Your task to perform on an android device: Play the last video I watched on Youtube Image 0: 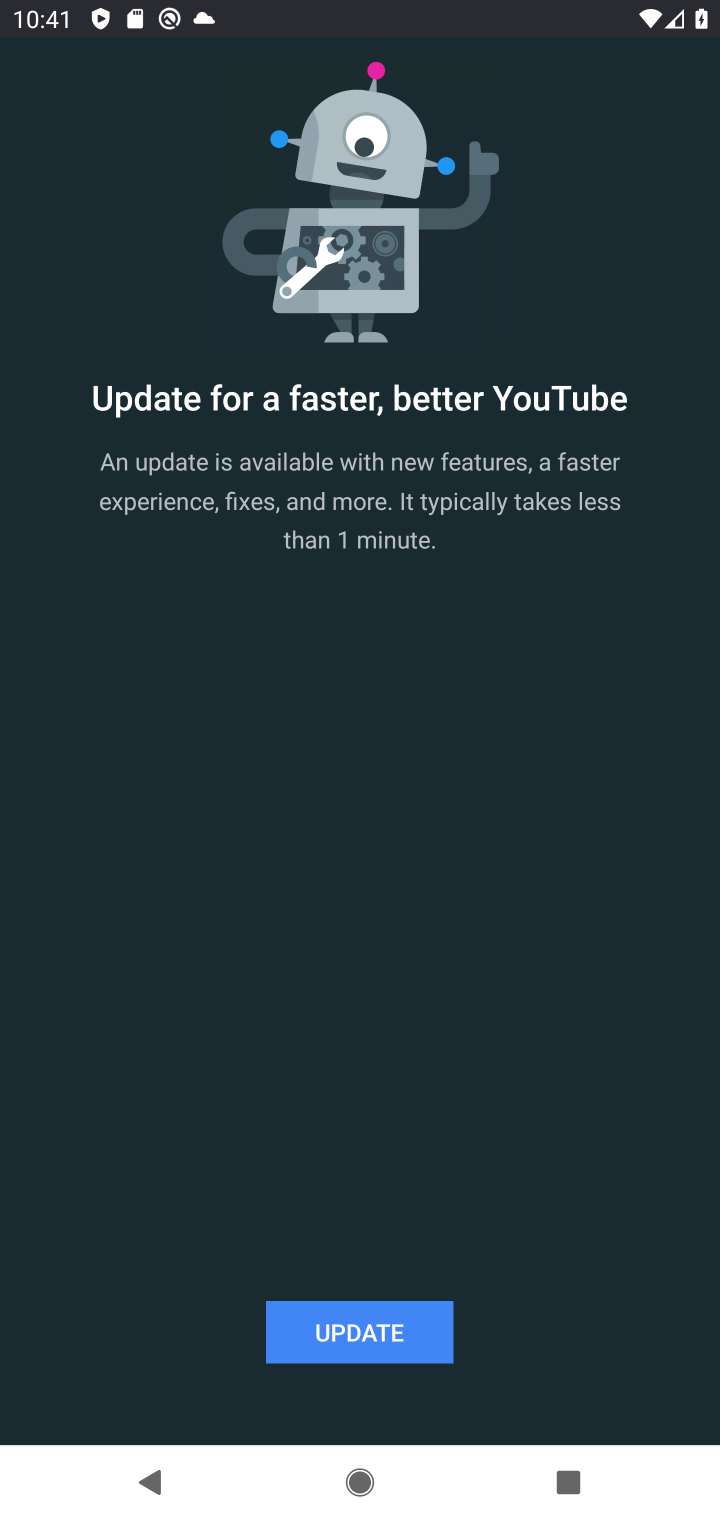
Step 0: press back button
Your task to perform on an android device: Play the last video I watched on Youtube Image 1: 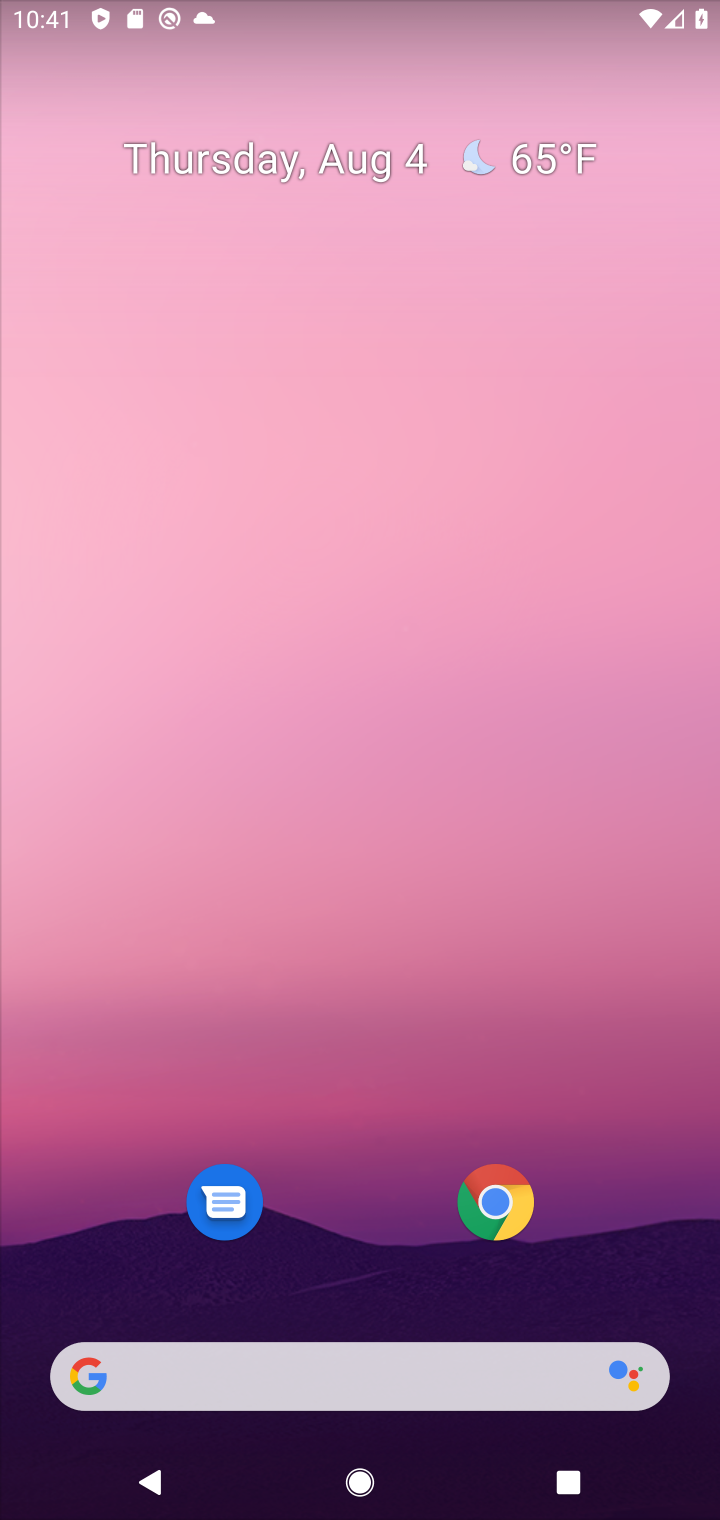
Step 1: drag from (362, 1124) to (542, 45)
Your task to perform on an android device: Play the last video I watched on Youtube Image 2: 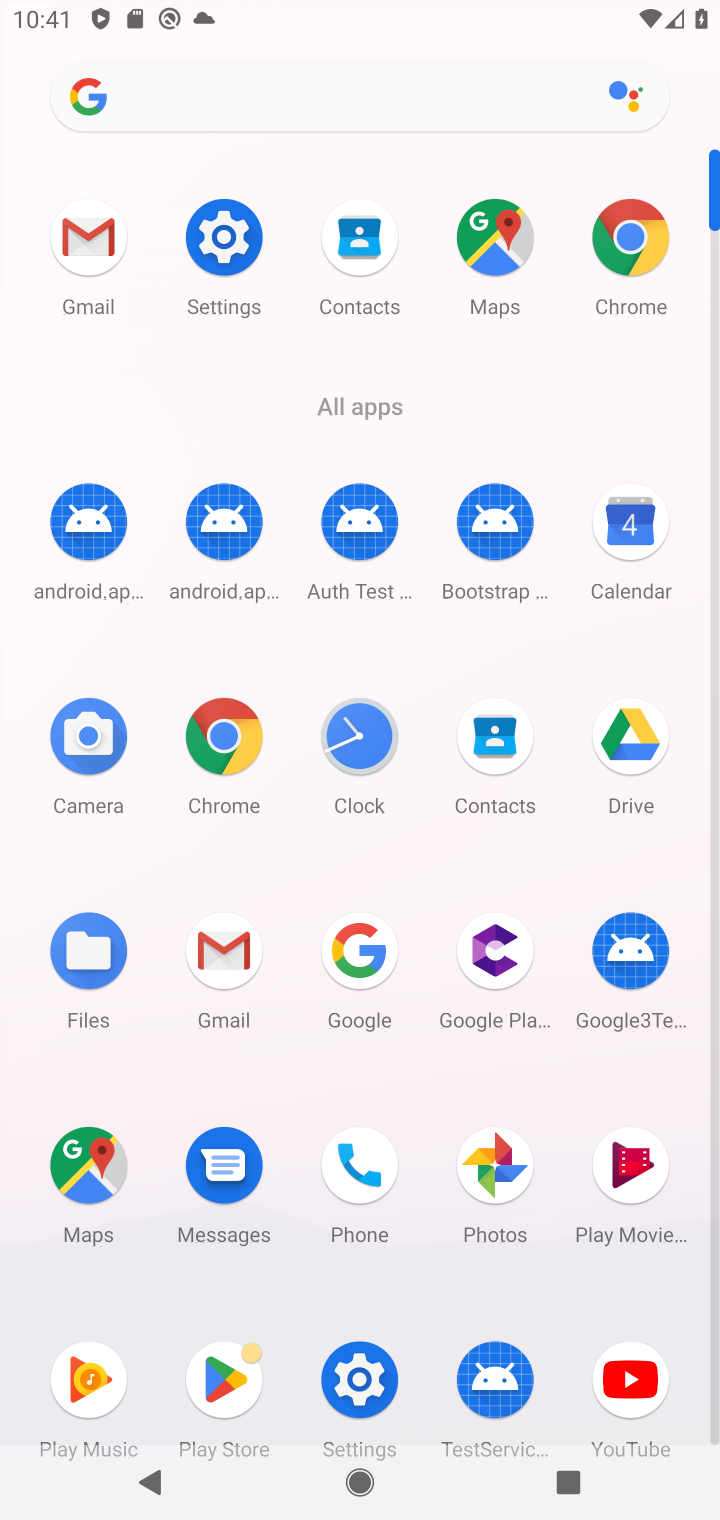
Step 2: click (216, 227)
Your task to perform on an android device: Play the last video I watched on Youtube Image 3: 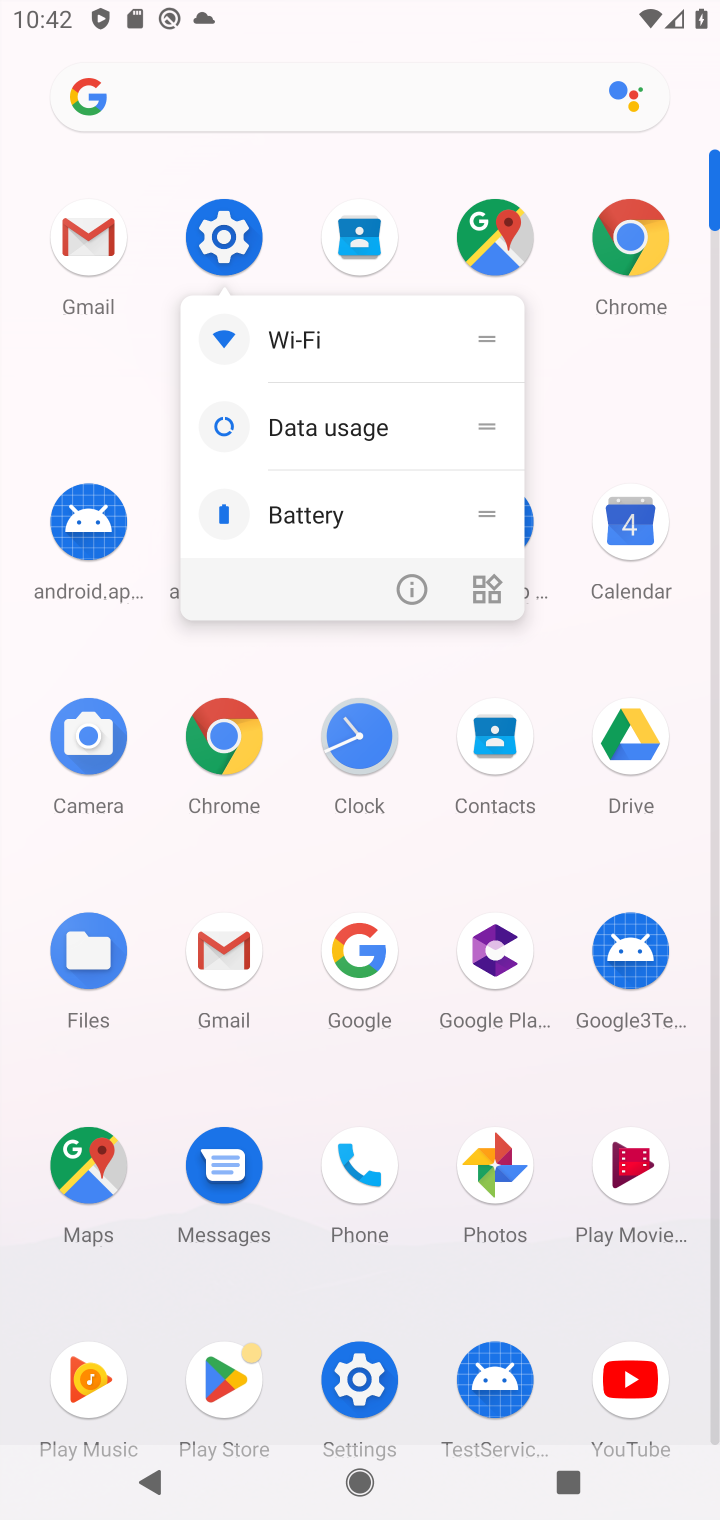
Step 3: click (220, 229)
Your task to perform on an android device: Play the last video I watched on Youtube Image 4: 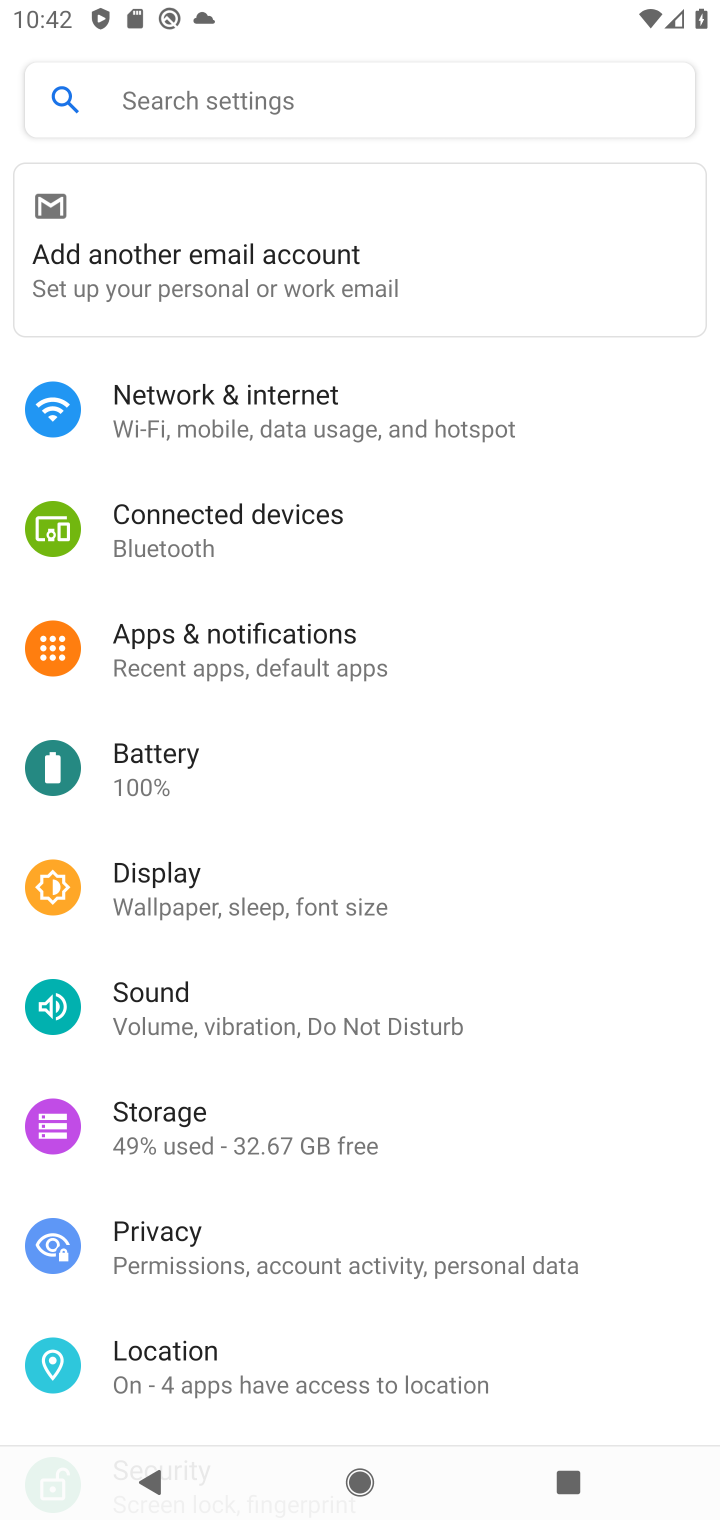
Step 4: click (171, 994)
Your task to perform on an android device: Play the last video I watched on Youtube Image 5: 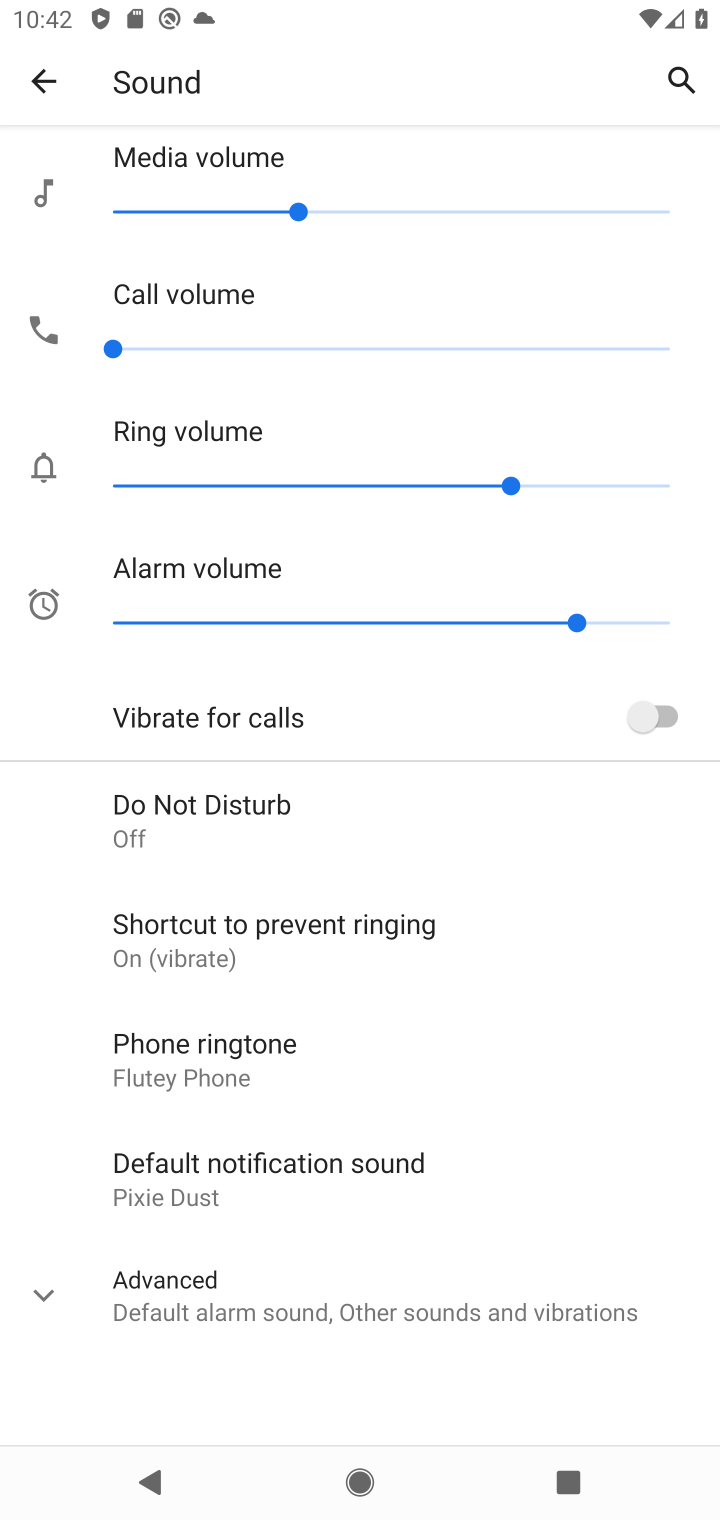
Step 5: press back button
Your task to perform on an android device: Play the last video I watched on Youtube Image 6: 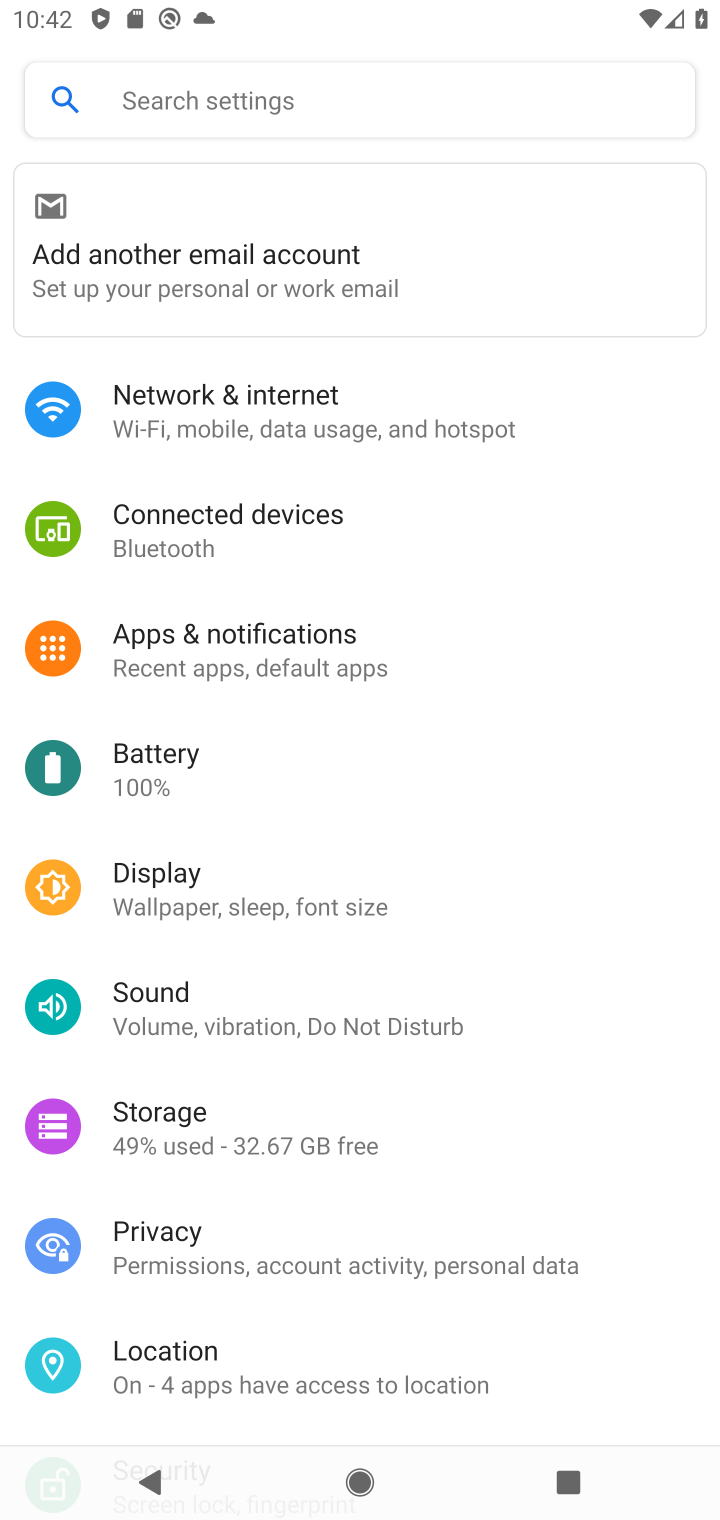
Step 6: press back button
Your task to perform on an android device: Play the last video I watched on Youtube Image 7: 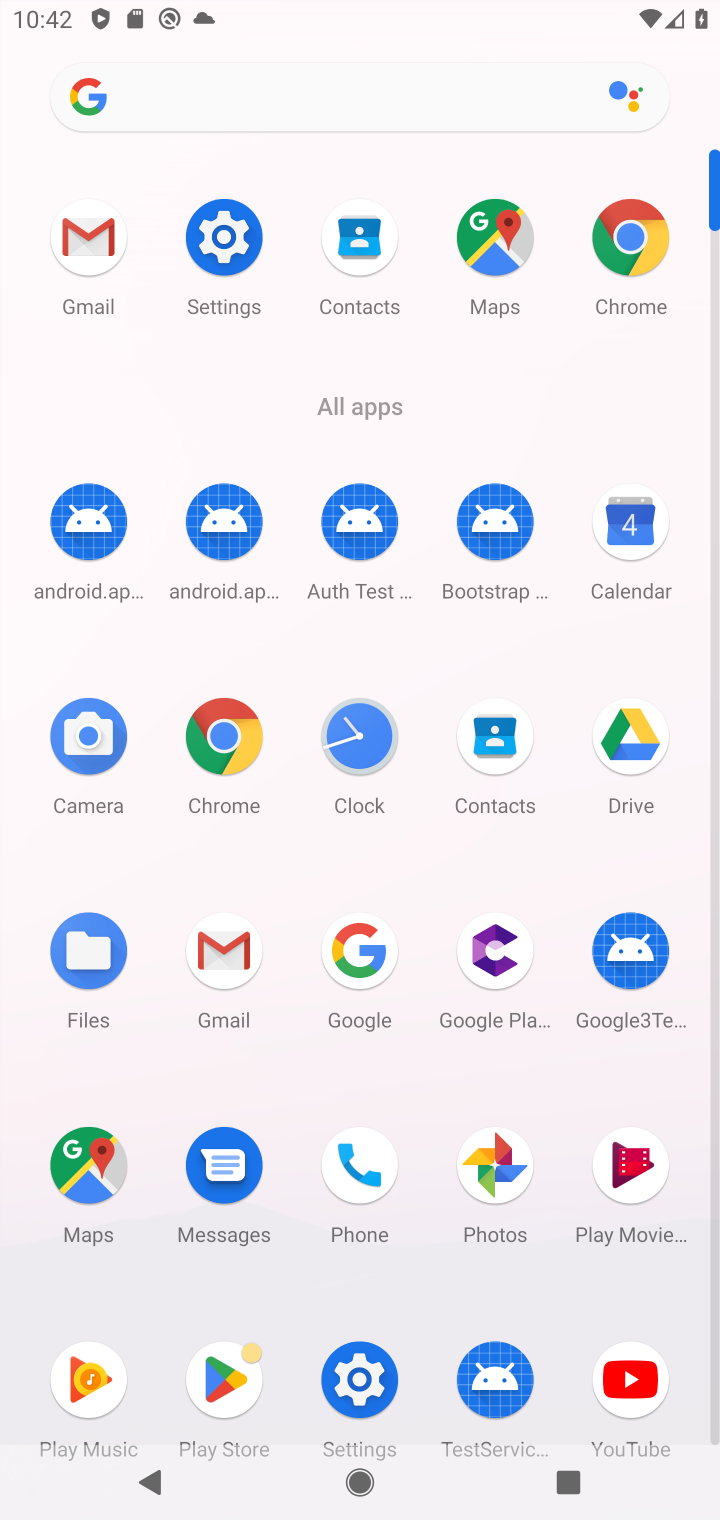
Step 7: click (634, 1390)
Your task to perform on an android device: Play the last video I watched on Youtube Image 8: 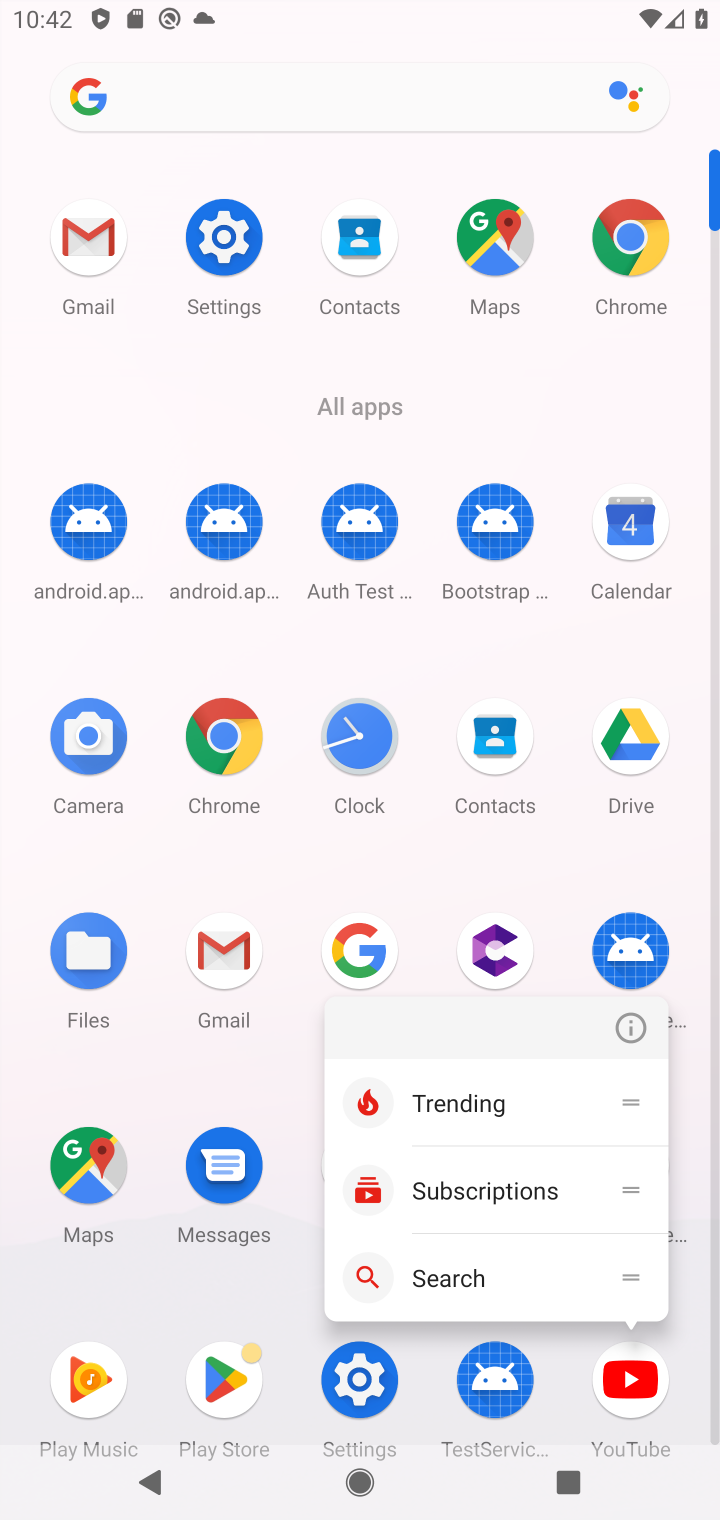
Step 8: click (631, 1382)
Your task to perform on an android device: Play the last video I watched on Youtube Image 9: 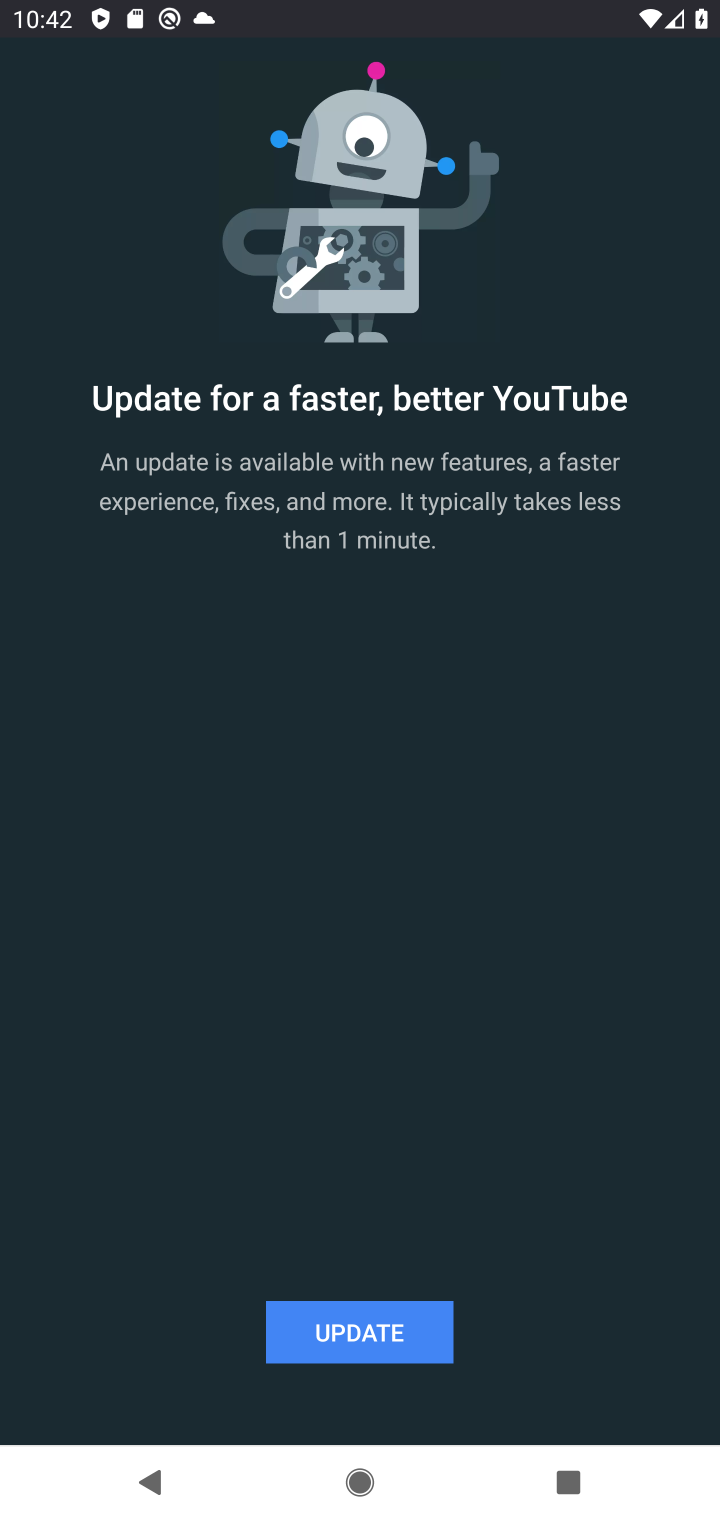
Step 9: click (424, 1314)
Your task to perform on an android device: Play the last video I watched on Youtube Image 10: 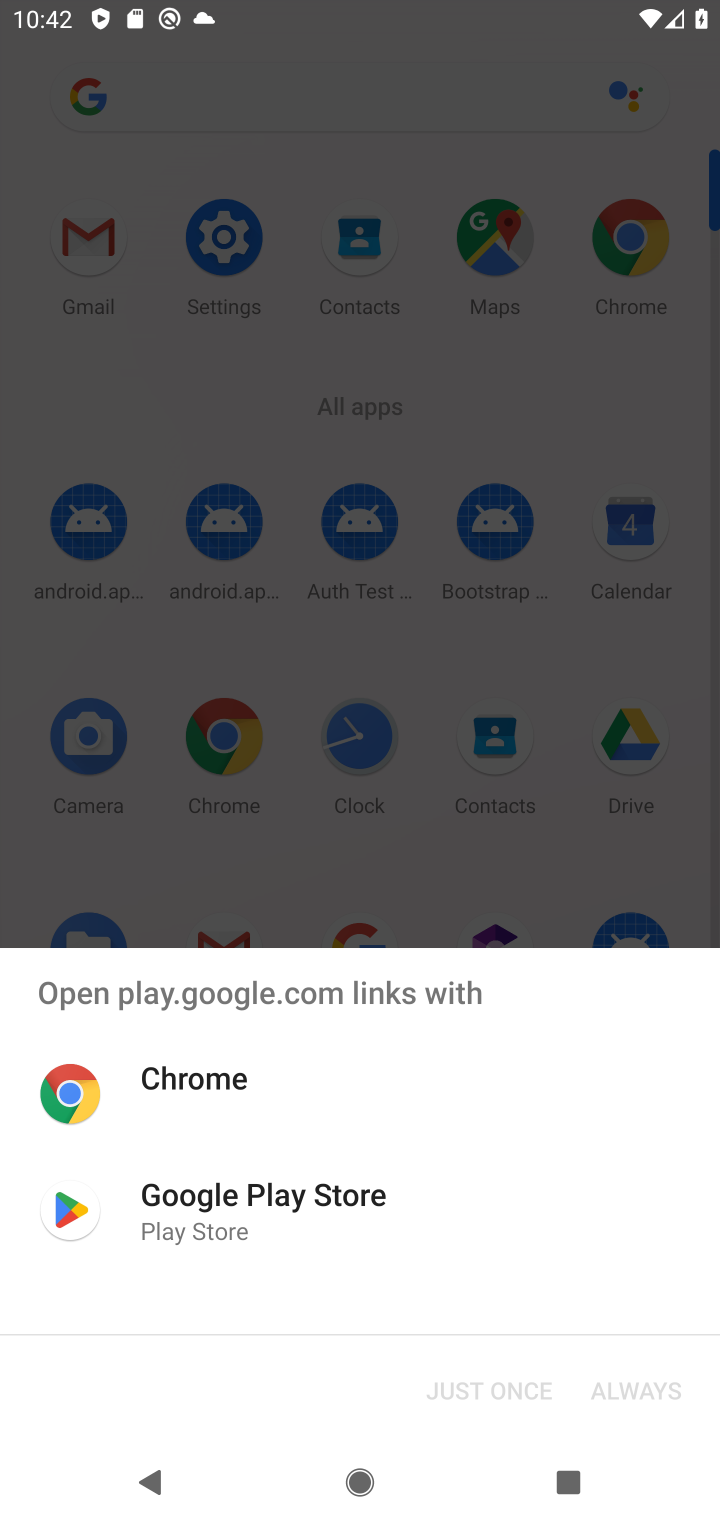
Step 10: click (247, 1233)
Your task to perform on an android device: Play the last video I watched on Youtube Image 11: 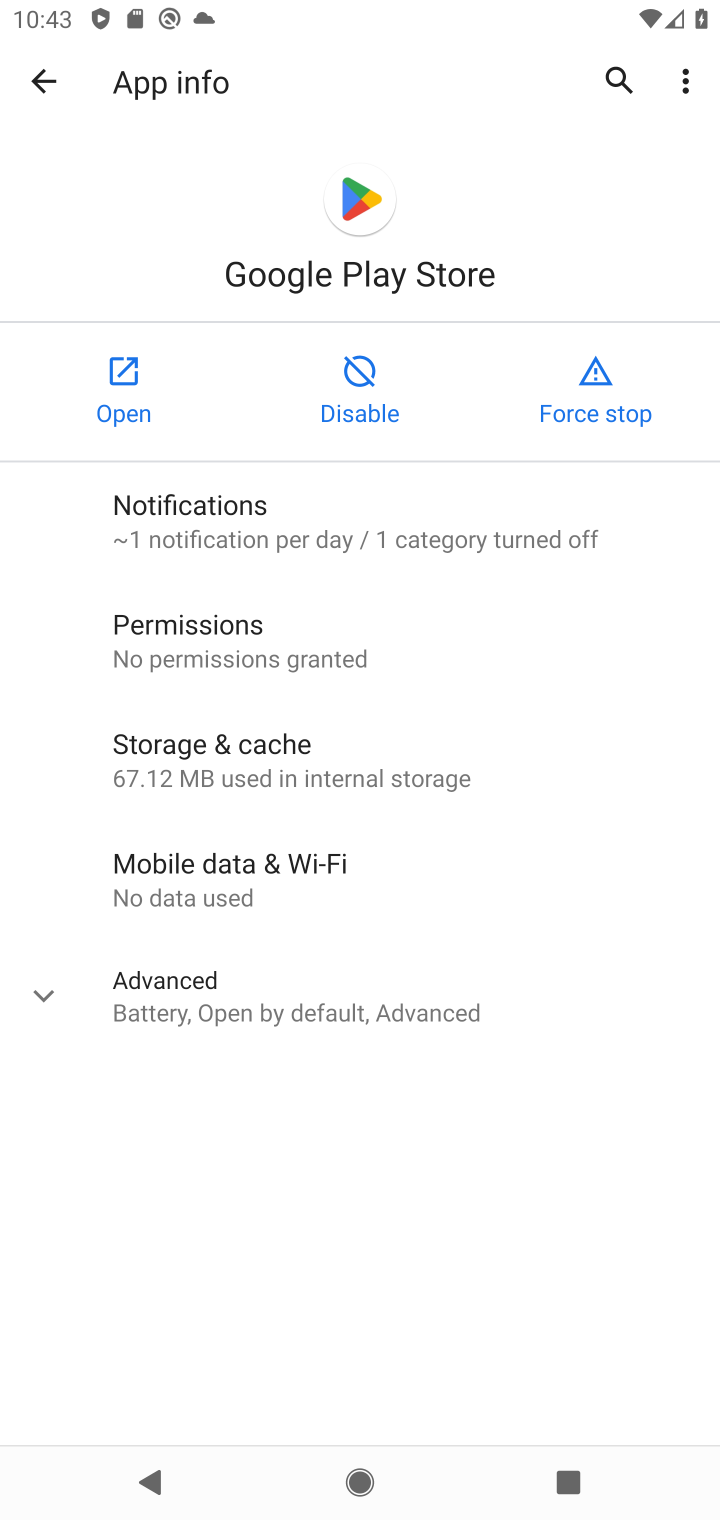
Step 11: press back button
Your task to perform on an android device: Play the last video I watched on Youtube Image 12: 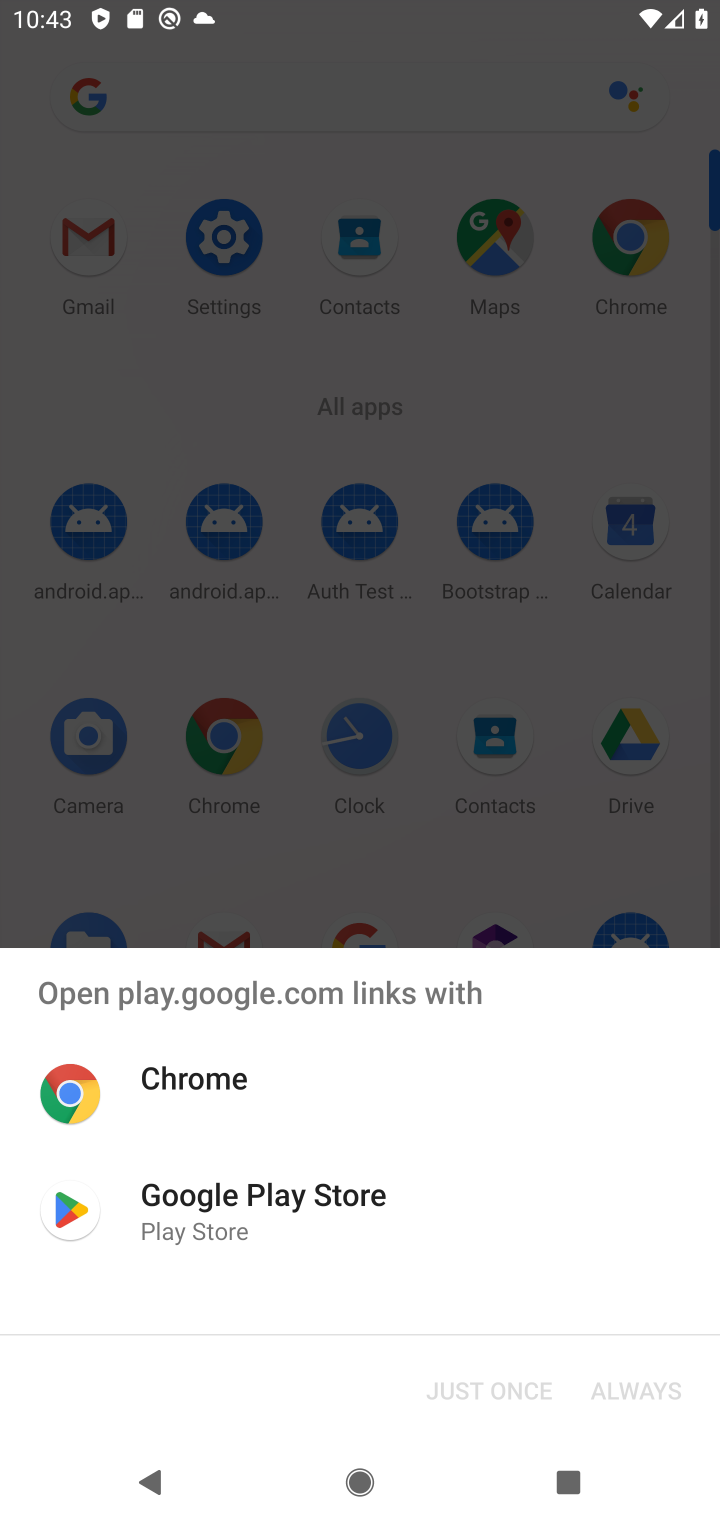
Step 12: press home button
Your task to perform on an android device: Play the last video I watched on Youtube Image 13: 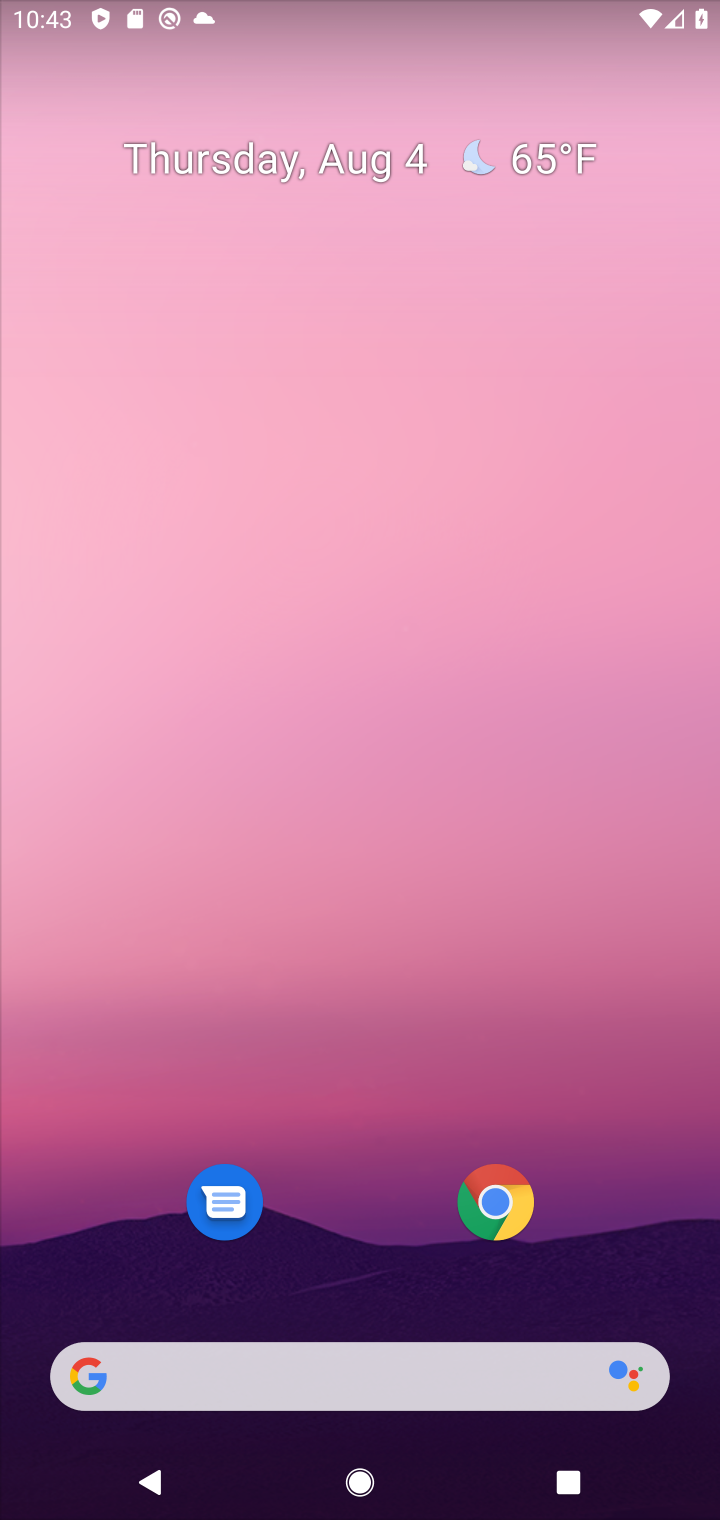
Step 13: drag from (340, 1246) to (330, 76)
Your task to perform on an android device: Play the last video I watched on Youtube Image 14: 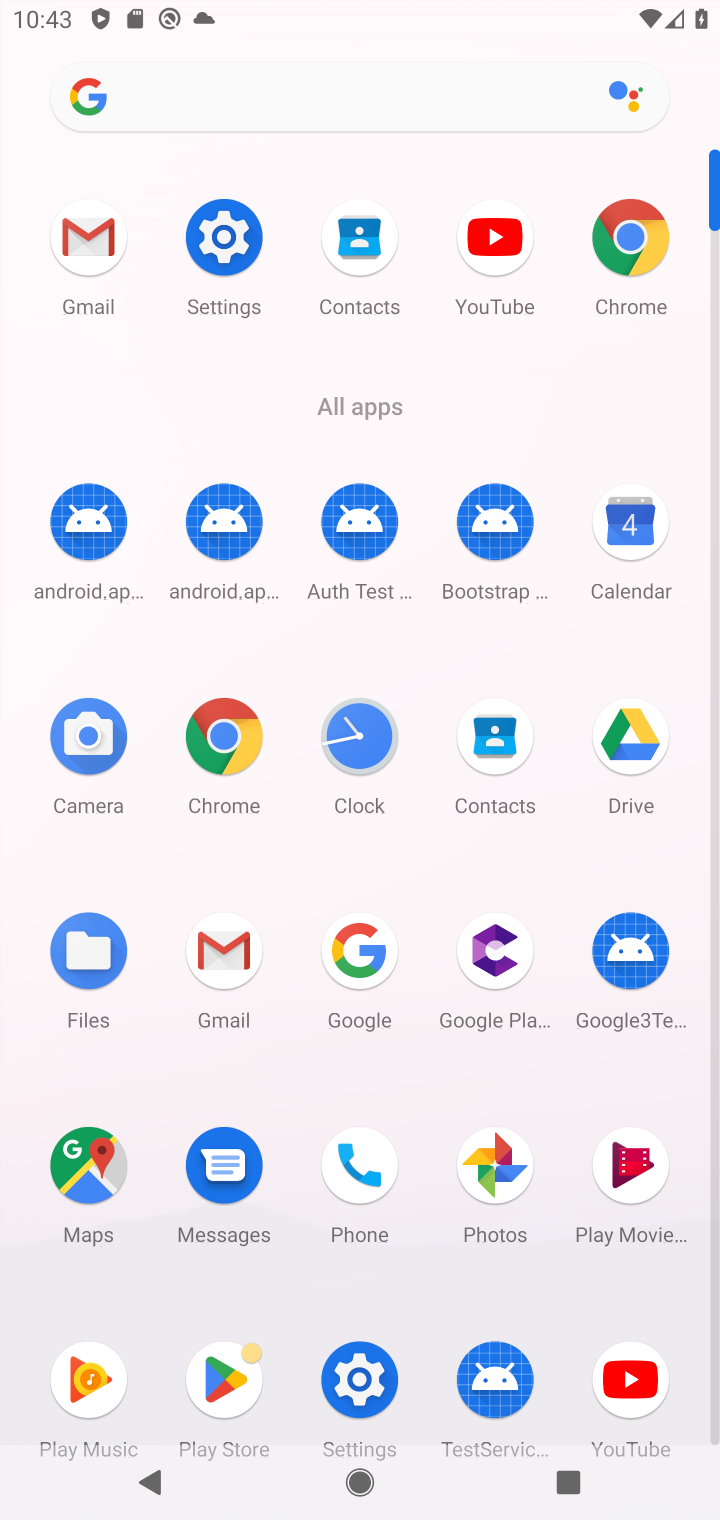
Step 14: click (620, 1383)
Your task to perform on an android device: Play the last video I watched on Youtube Image 15: 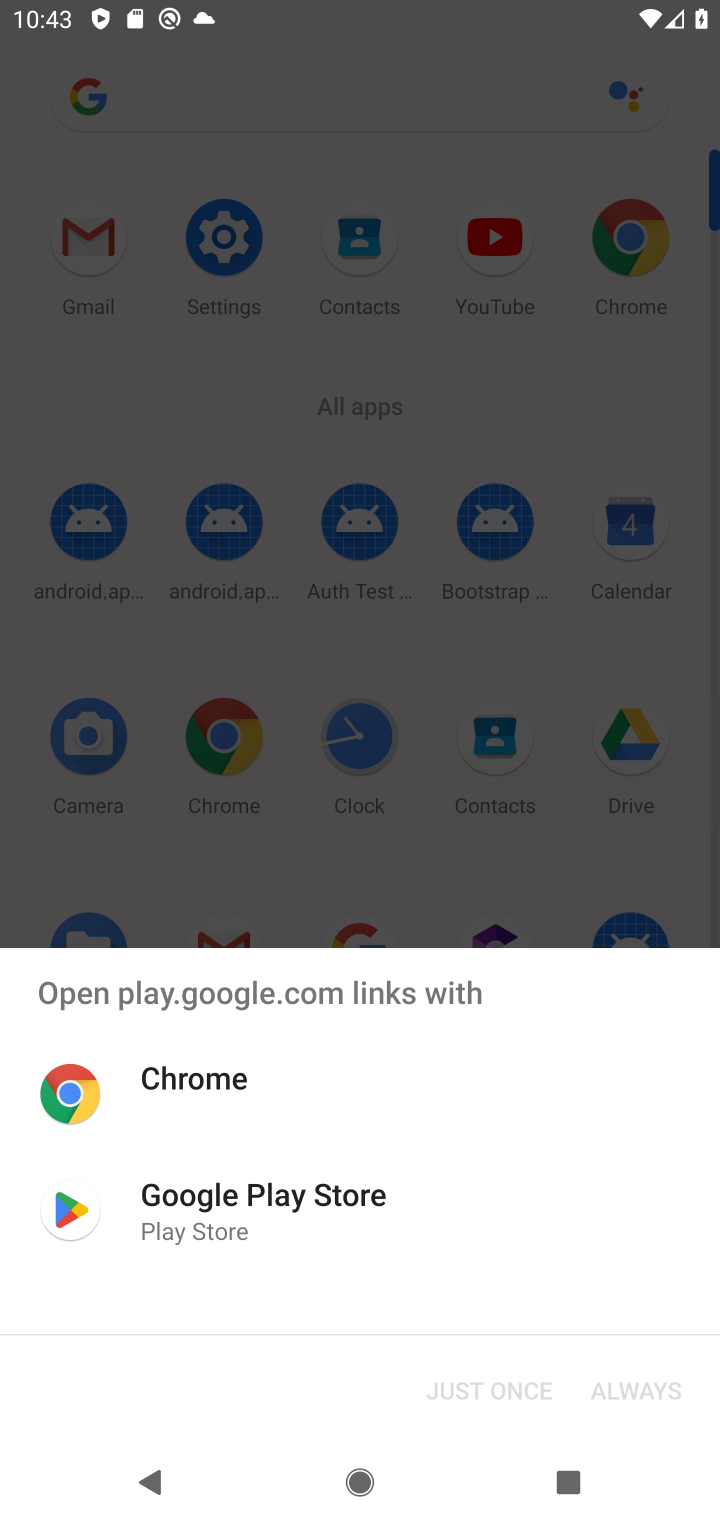
Step 15: click (193, 1203)
Your task to perform on an android device: Play the last video I watched on Youtube Image 16: 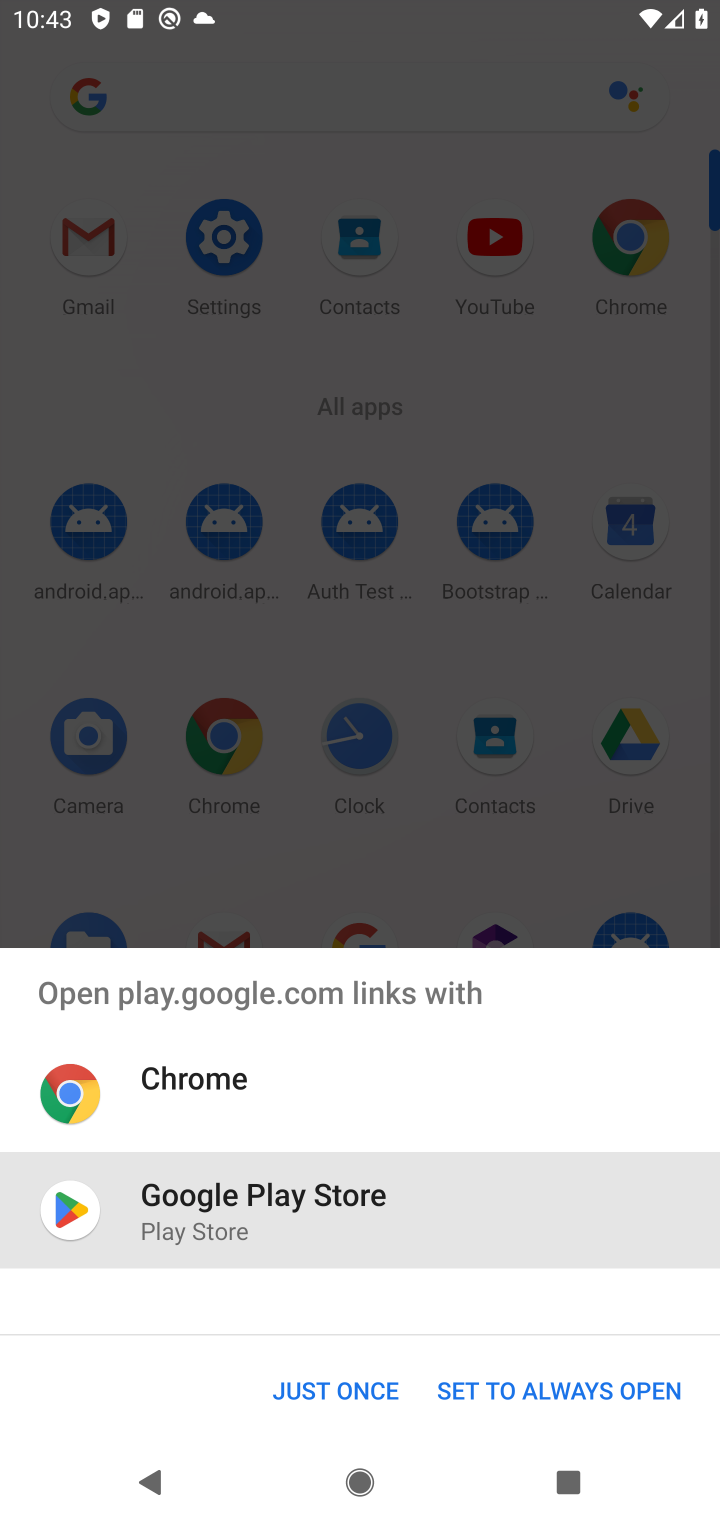
Step 16: click (306, 1398)
Your task to perform on an android device: Play the last video I watched on Youtube Image 17: 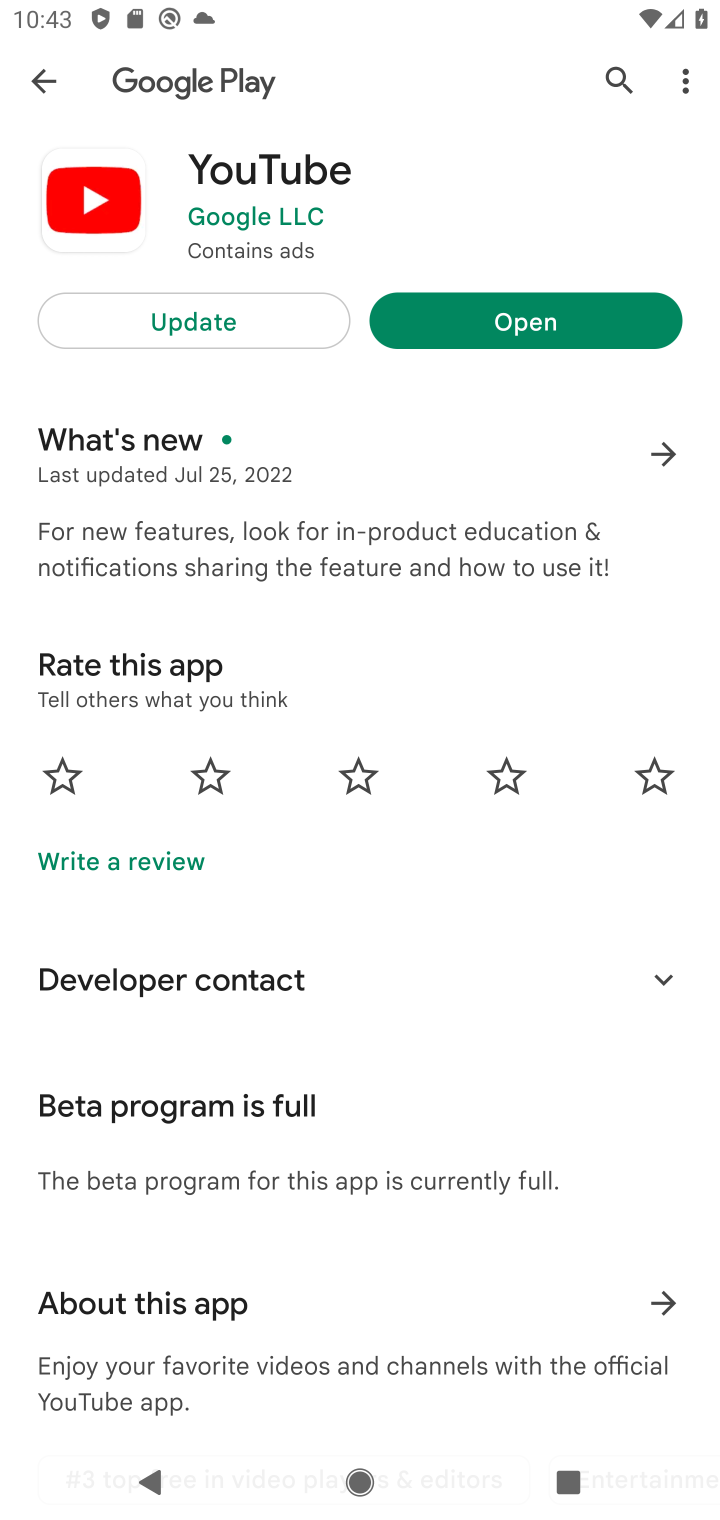
Step 17: click (587, 330)
Your task to perform on an android device: Play the last video I watched on Youtube Image 18: 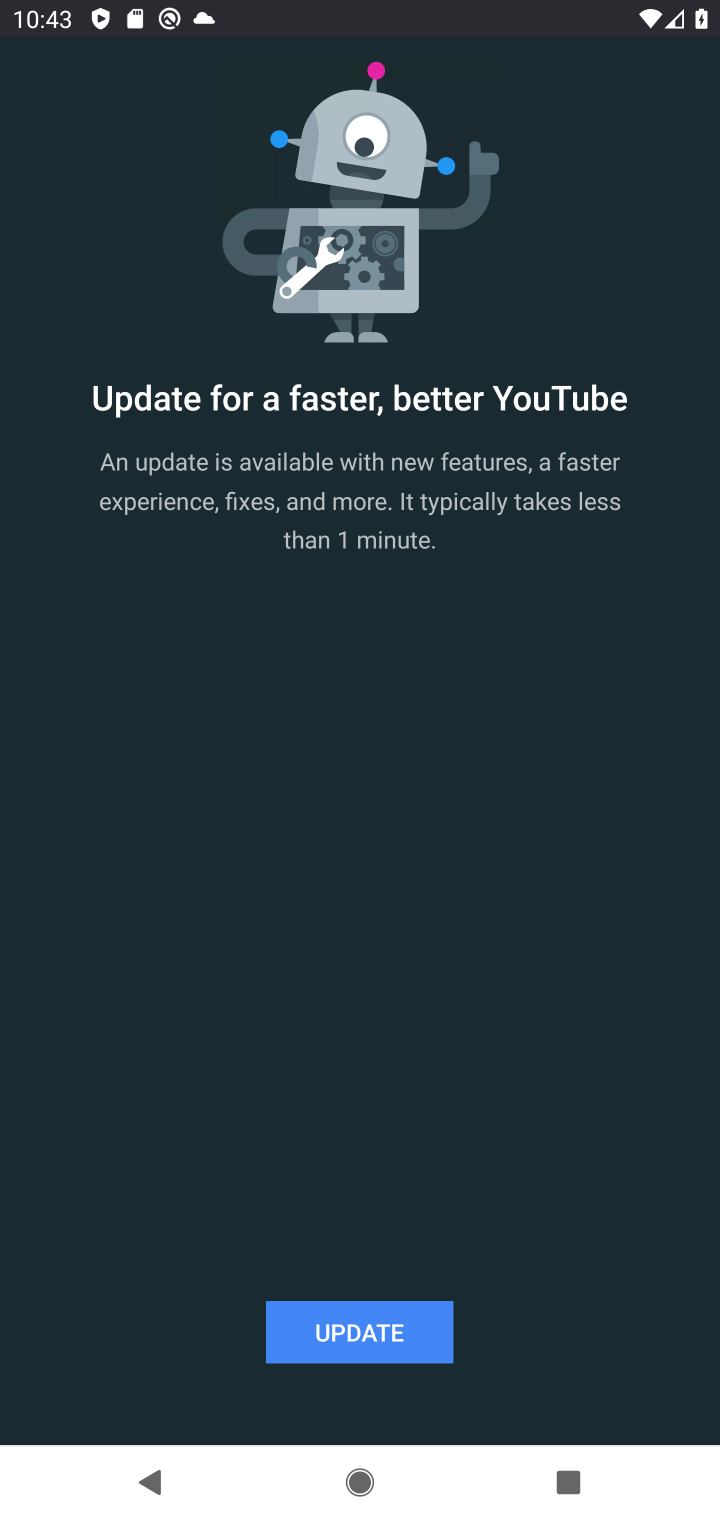
Step 18: task complete